Your task to perform on an android device: turn pop-ups off in chrome Image 0: 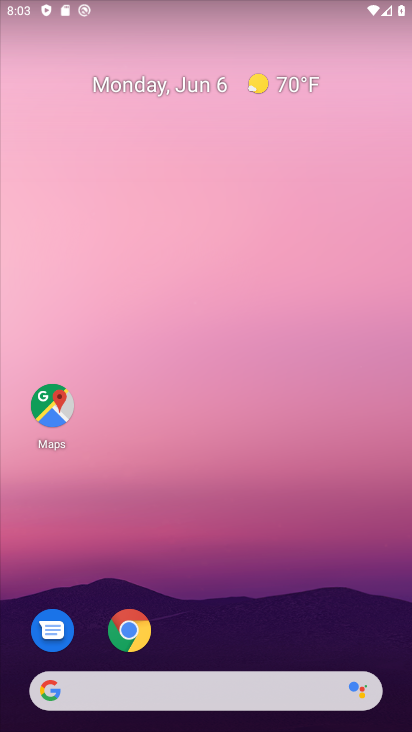
Step 0: click (139, 621)
Your task to perform on an android device: turn pop-ups off in chrome Image 1: 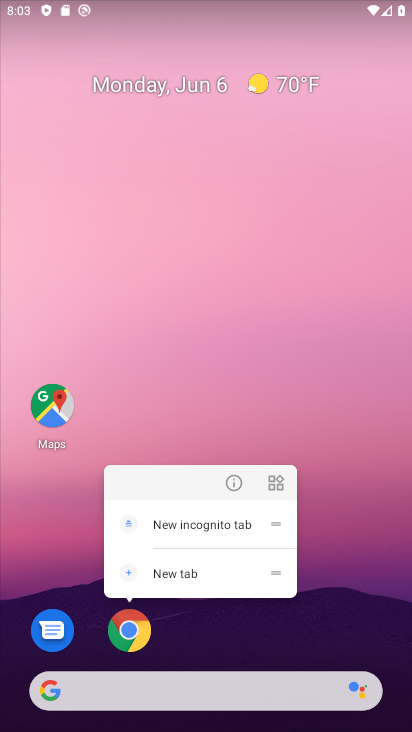
Step 1: click (139, 614)
Your task to perform on an android device: turn pop-ups off in chrome Image 2: 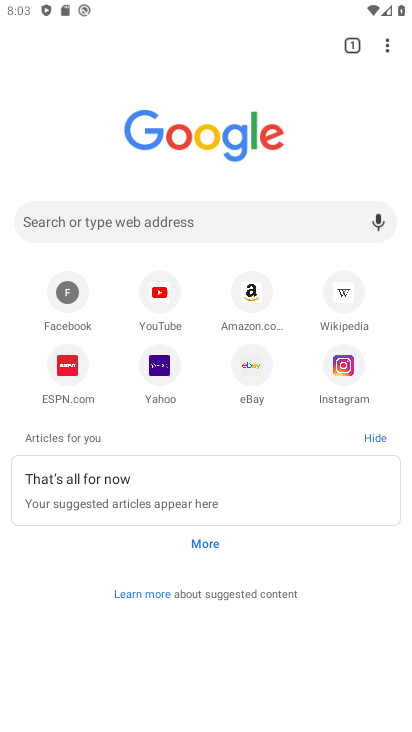
Step 2: drag from (382, 48) to (251, 379)
Your task to perform on an android device: turn pop-ups off in chrome Image 3: 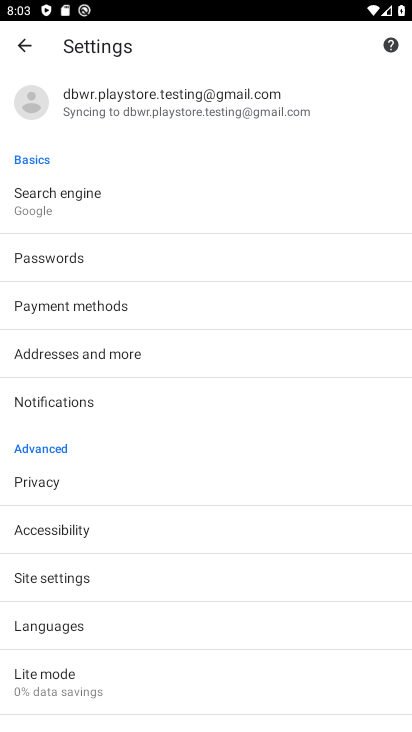
Step 3: drag from (197, 583) to (238, 374)
Your task to perform on an android device: turn pop-ups off in chrome Image 4: 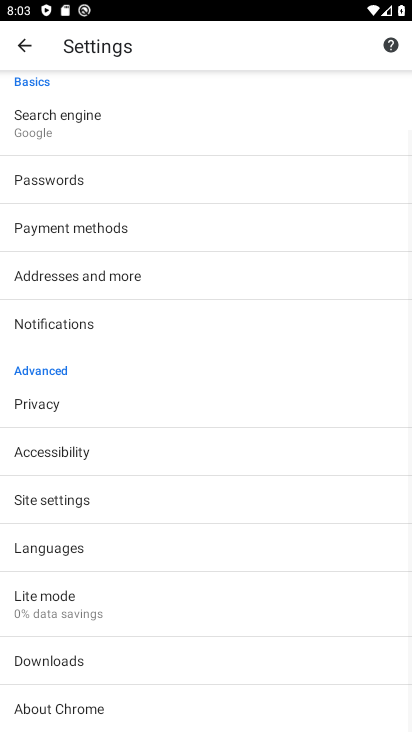
Step 4: drag from (188, 563) to (231, 406)
Your task to perform on an android device: turn pop-ups off in chrome Image 5: 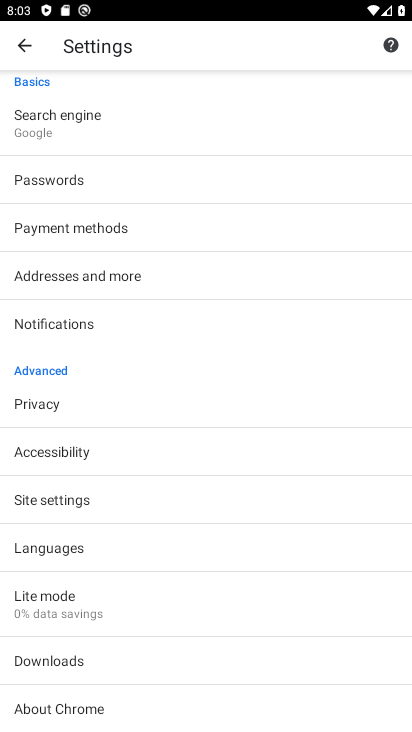
Step 5: drag from (158, 621) to (223, 433)
Your task to perform on an android device: turn pop-ups off in chrome Image 6: 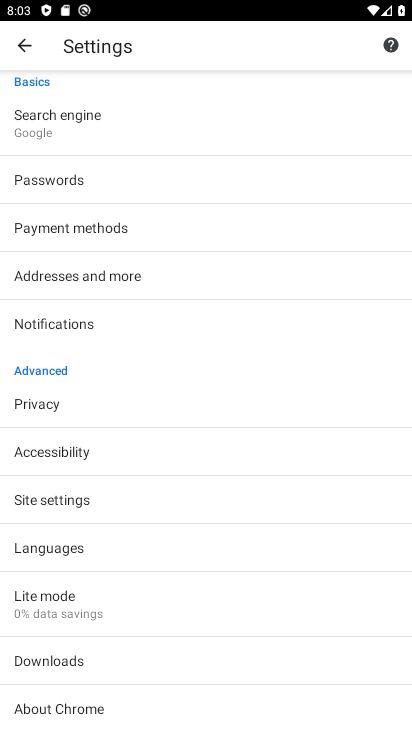
Step 6: drag from (225, 398) to (225, 587)
Your task to perform on an android device: turn pop-ups off in chrome Image 7: 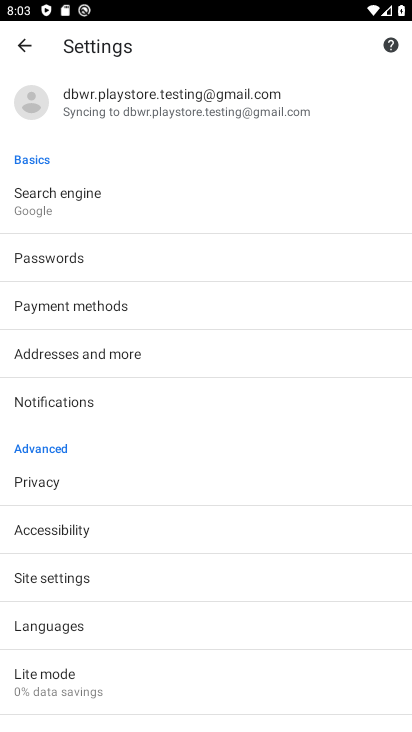
Step 7: click (151, 576)
Your task to perform on an android device: turn pop-ups off in chrome Image 8: 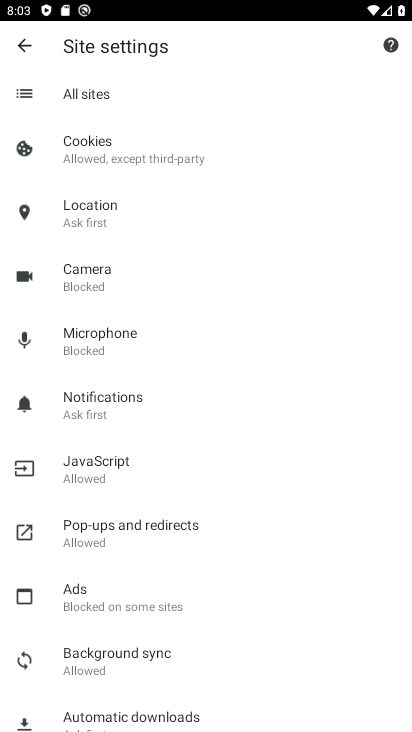
Step 8: click (146, 525)
Your task to perform on an android device: turn pop-ups off in chrome Image 9: 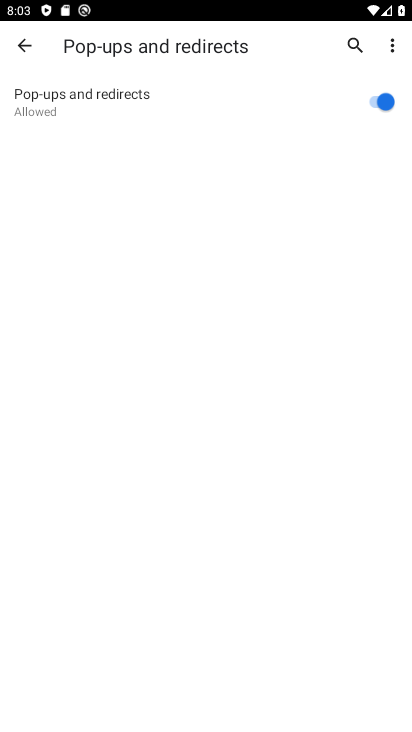
Step 9: click (387, 83)
Your task to perform on an android device: turn pop-ups off in chrome Image 10: 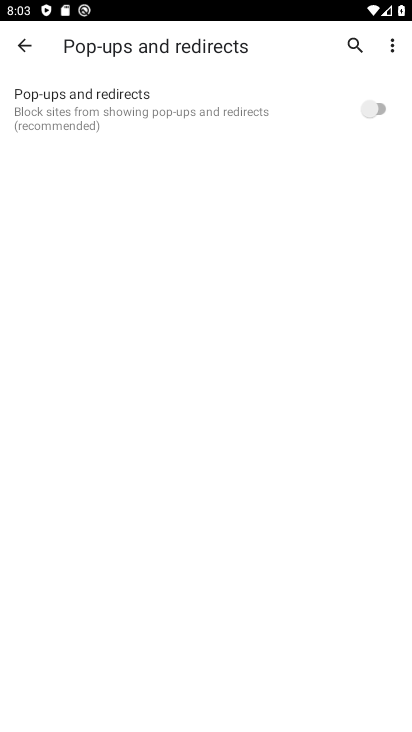
Step 10: task complete